Your task to perform on an android device: Open battery settings Image 0: 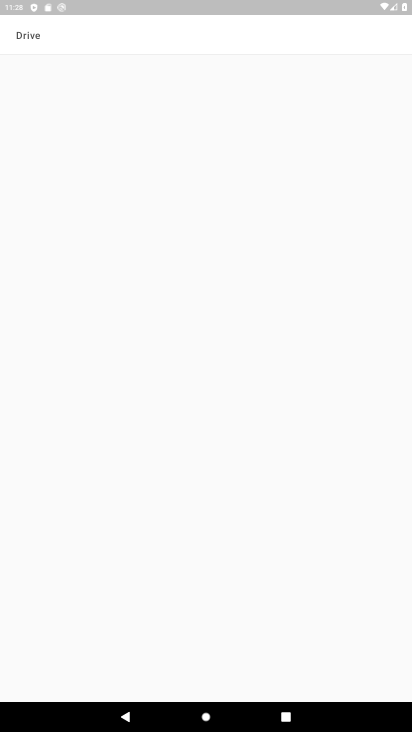
Step 0: press home button
Your task to perform on an android device: Open battery settings Image 1: 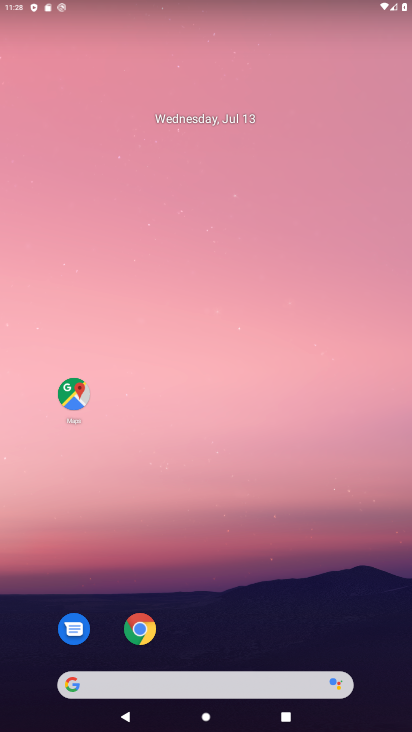
Step 1: drag from (296, 605) to (223, 2)
Your task to perform on an android device: Open battery settings Image 2: 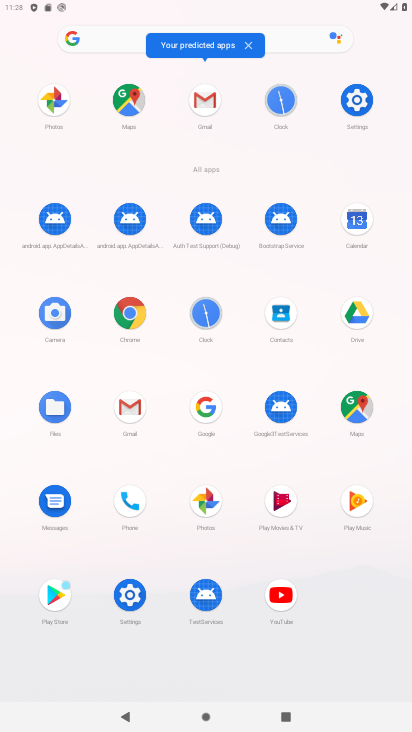
Step 2: click (348, 106)
Your task to perform on an android device: Open battery settings Image 3: 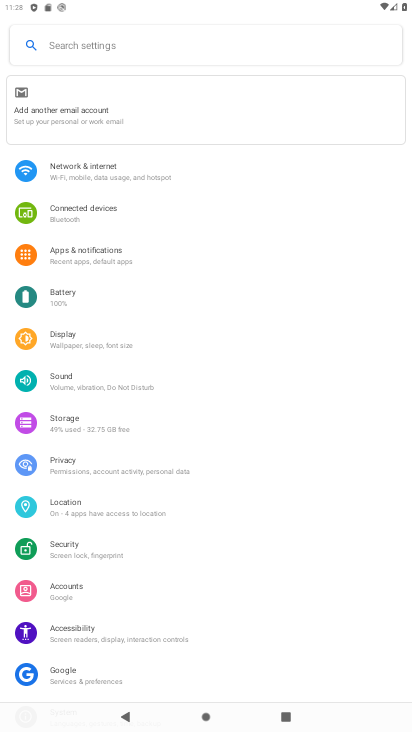
Step 3: click (111, 299)
Your task to perform on an android device: Open battery settings Image 4: 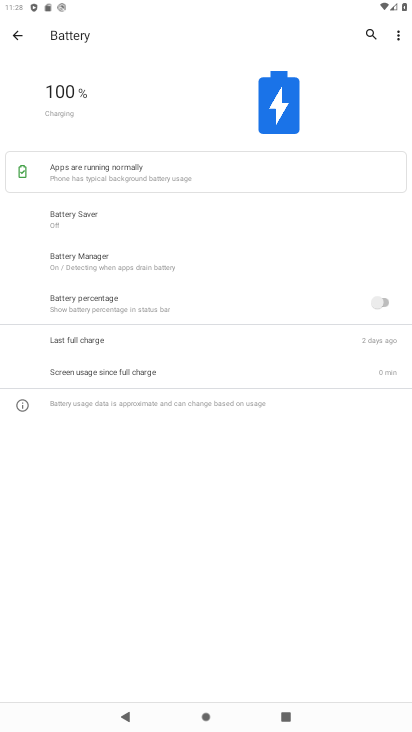
Step 4: task complete